Your task to perform on an android device: snooze an email in the gmail app Image 0: 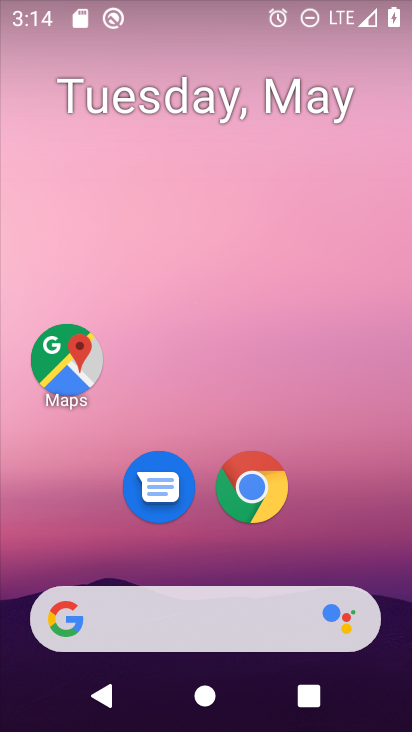
Step 0: drag from (10, 719) to (225, 145)
Your task to perform on an android device: snooze an email in the gmail app Image 1: 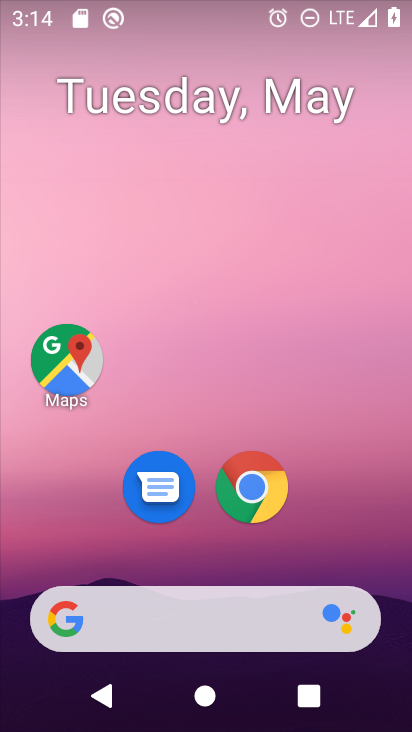
Step 1: drag from (98, 315) to (289, 10)
Your task to perform on an android device: snooze an email in the gmail app Image 2: 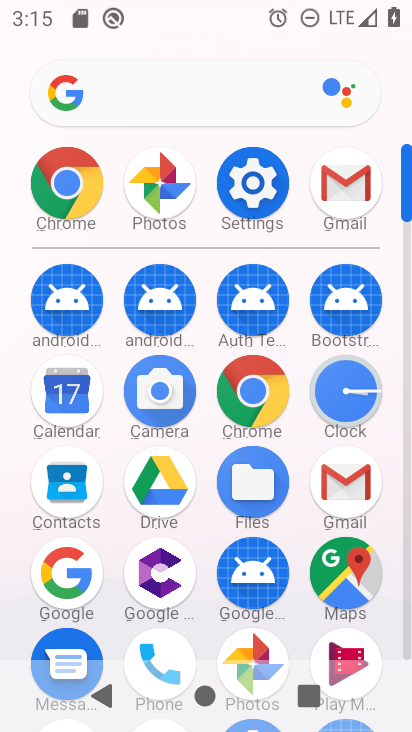
Step 2: click (354, 484)
Your task to perform on an android device: snooze an email in the gmail app Image 3: 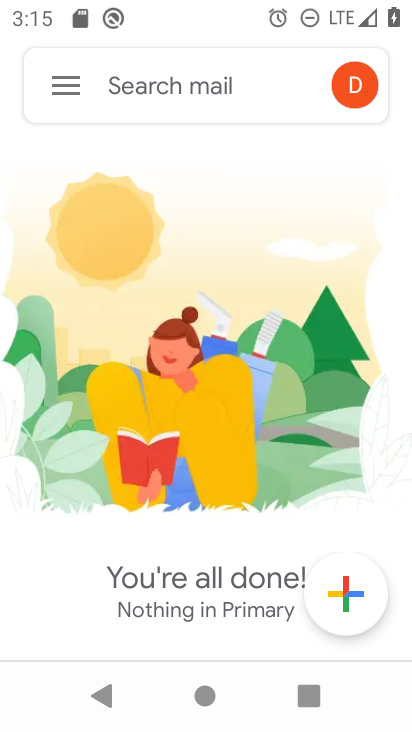
Step 3: click (58, 87)
Your task to perform on an android device: snooze an email in the gmail app Image 4: 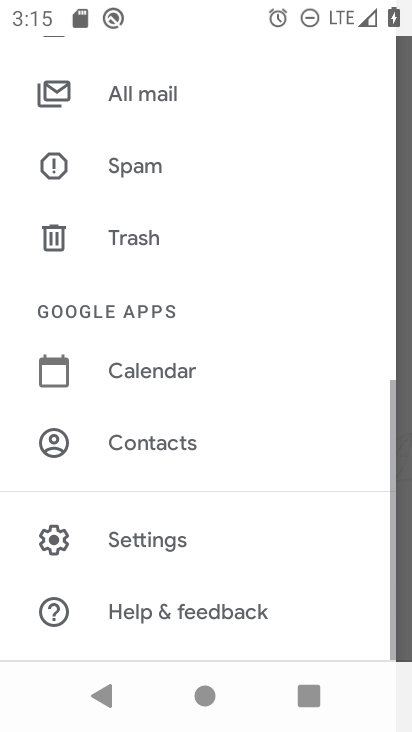
Step 4: click (176, 85)
Your task to perform on an android device: snooze an email in the gmail app Image 5: 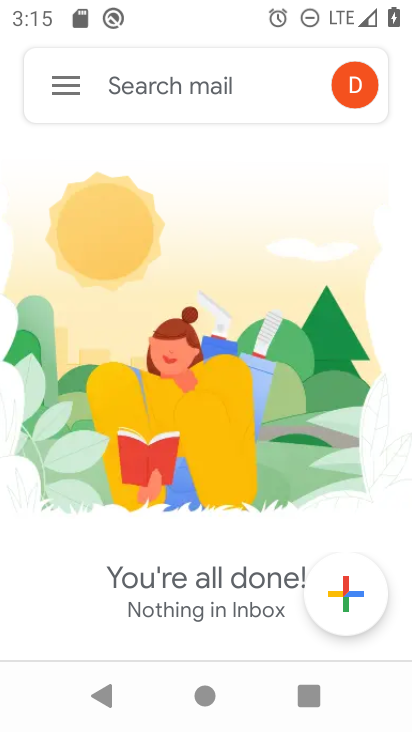
Step 5: task complete